Your task to perform on an android device: choose inbox layout in the gmail app Image 0: 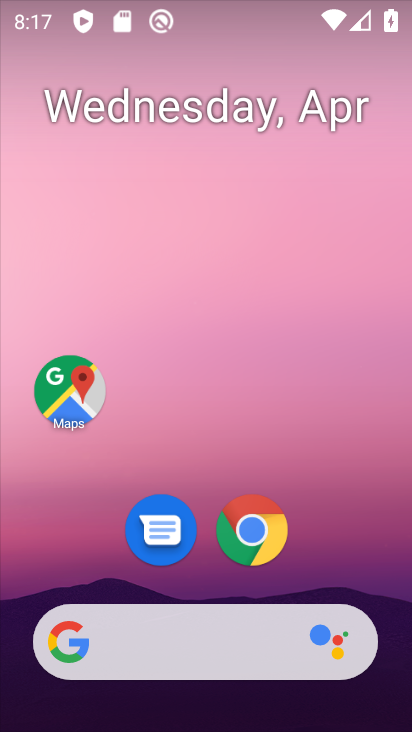
Step 0: drag from (365, 573) to (257, 43)
Your task to perform on an android device: choose inbox layout in the gmail app Image 1: 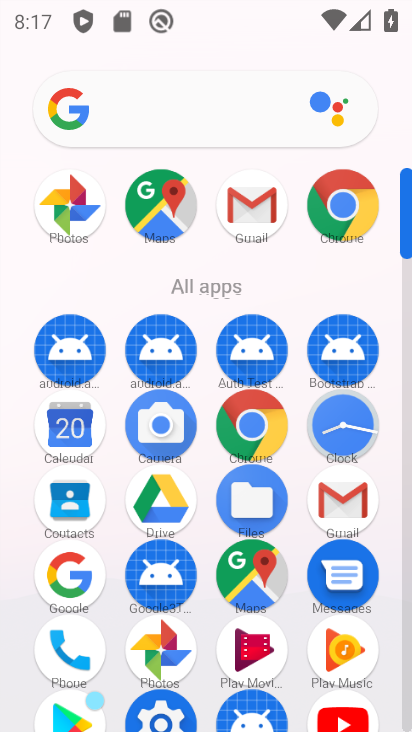
Step 1: click (273, 205)
Your task to perform on an android device: choose inbox layout in the gmail app Image 2: 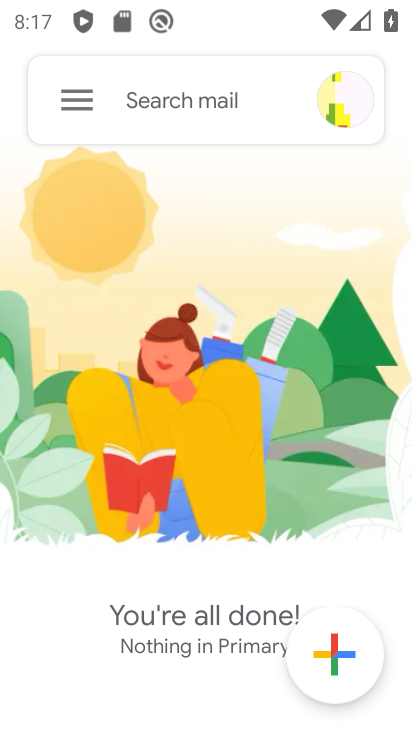
Step 2: click (62, 96)
Your task to perform on an android device: choose inbox layout in the gmail app Image 3: 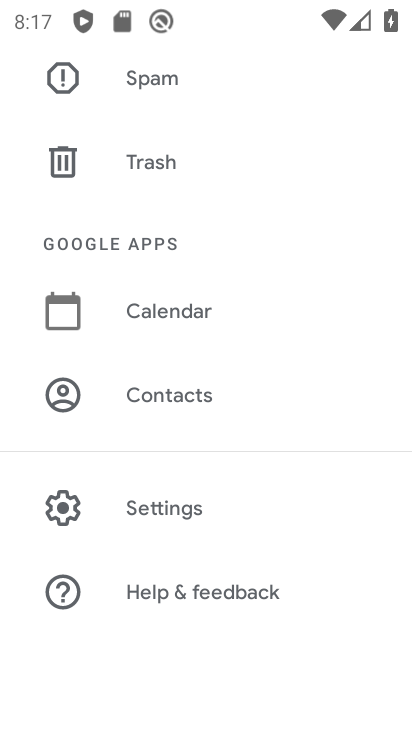
Step 3: click (230, 518)
Your task to perform on an android device: choose inbox layout in the gmail app Image 4: 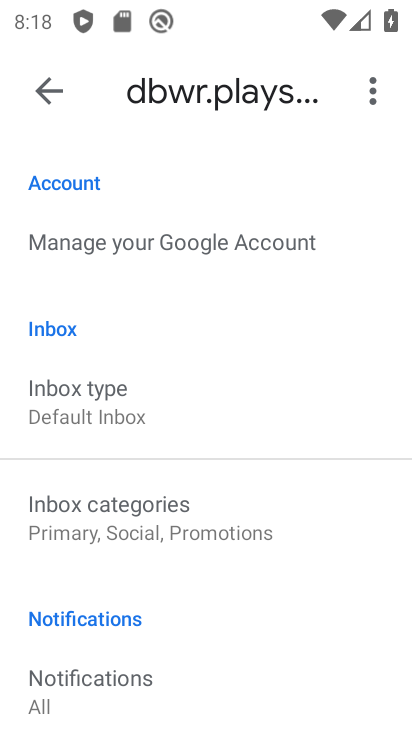
Step 4: click (189, 431)
Your task to perform on an android device: choose inbox layout in the gmail app Image 5: 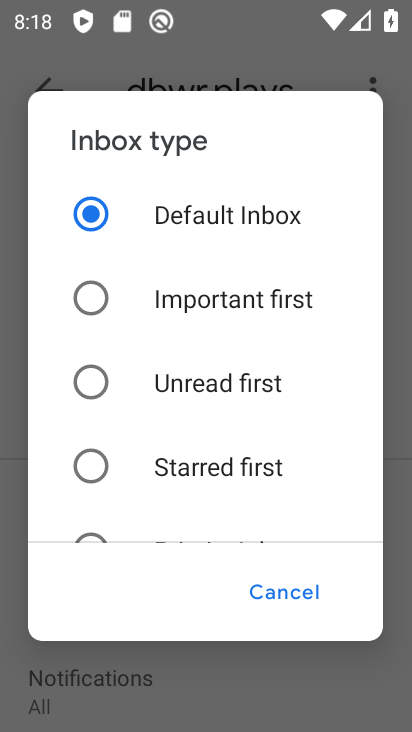
Step 5: click (202, 279)
Your task to perform on an android device: choose inbox layout in the gmail app Image 6: 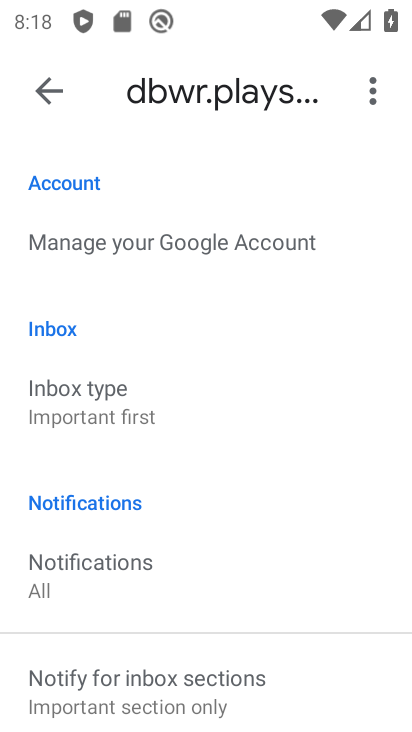
Step 6: task complete